Your task to perform on an android device: Add alienware area 51 to the cart on costco.com Image 0: 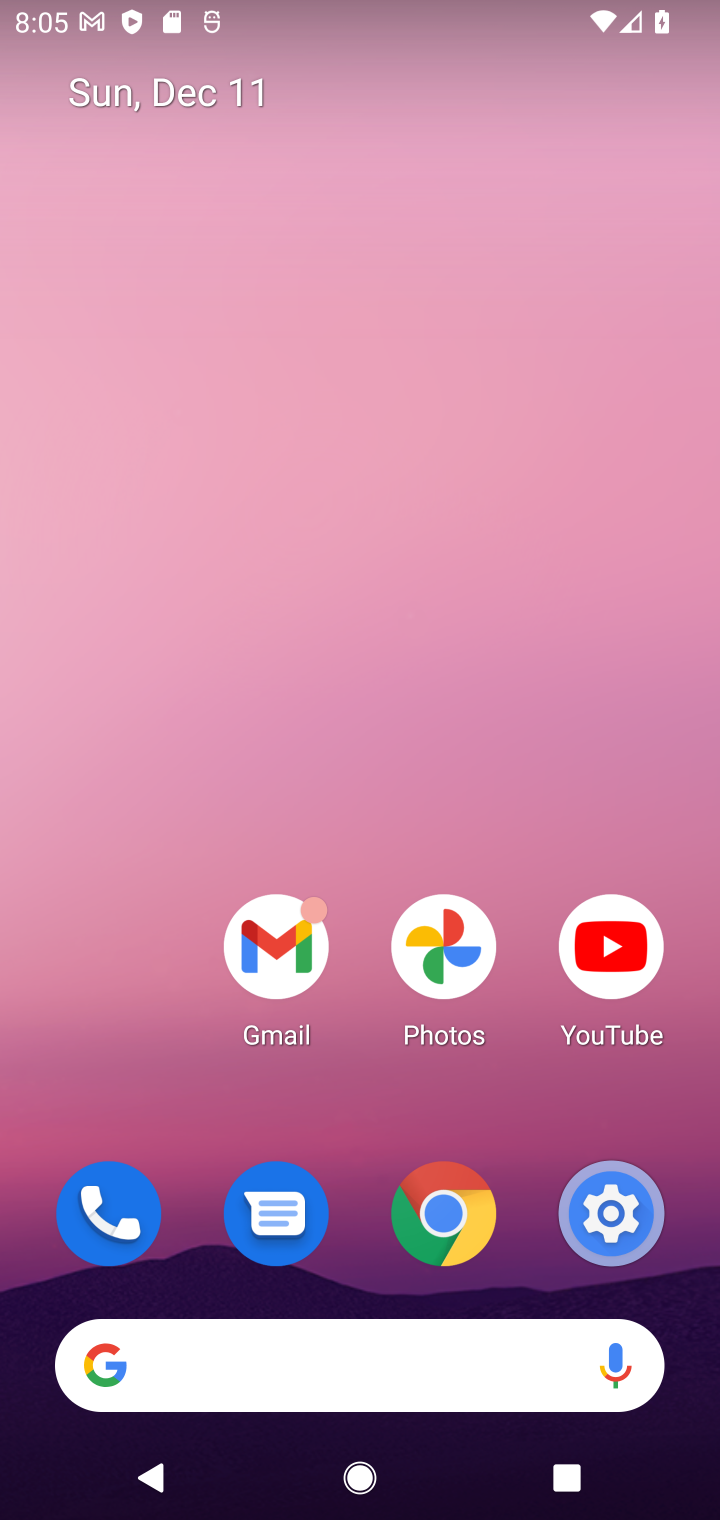
Step 0: click (432, 1362)
Your task to perform on an android device: Add alienware area 51 to the cart on costco.com Image 1: 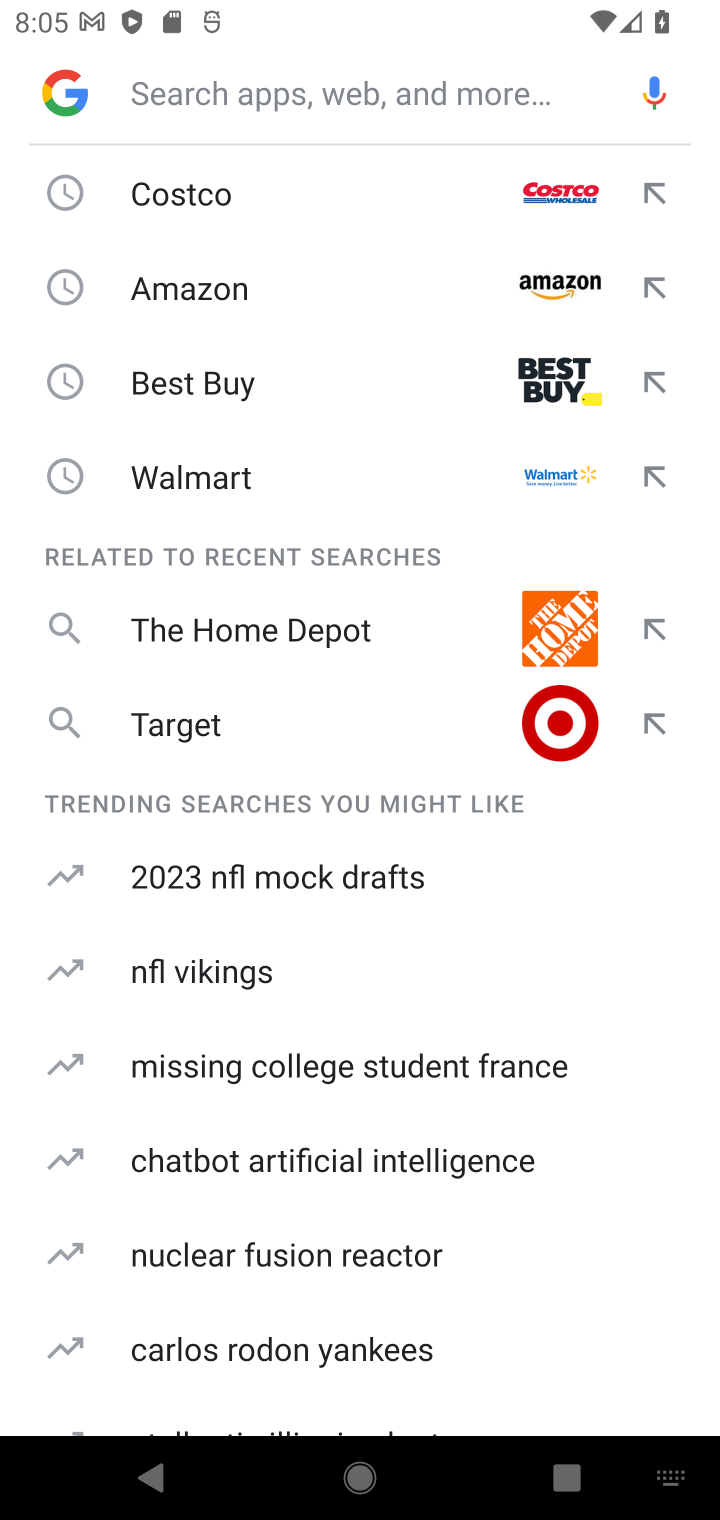
Step 1: click (296, 200)
Your task to perform on an android device: Add alienware area 51 to the cart on costco.com Image 2: 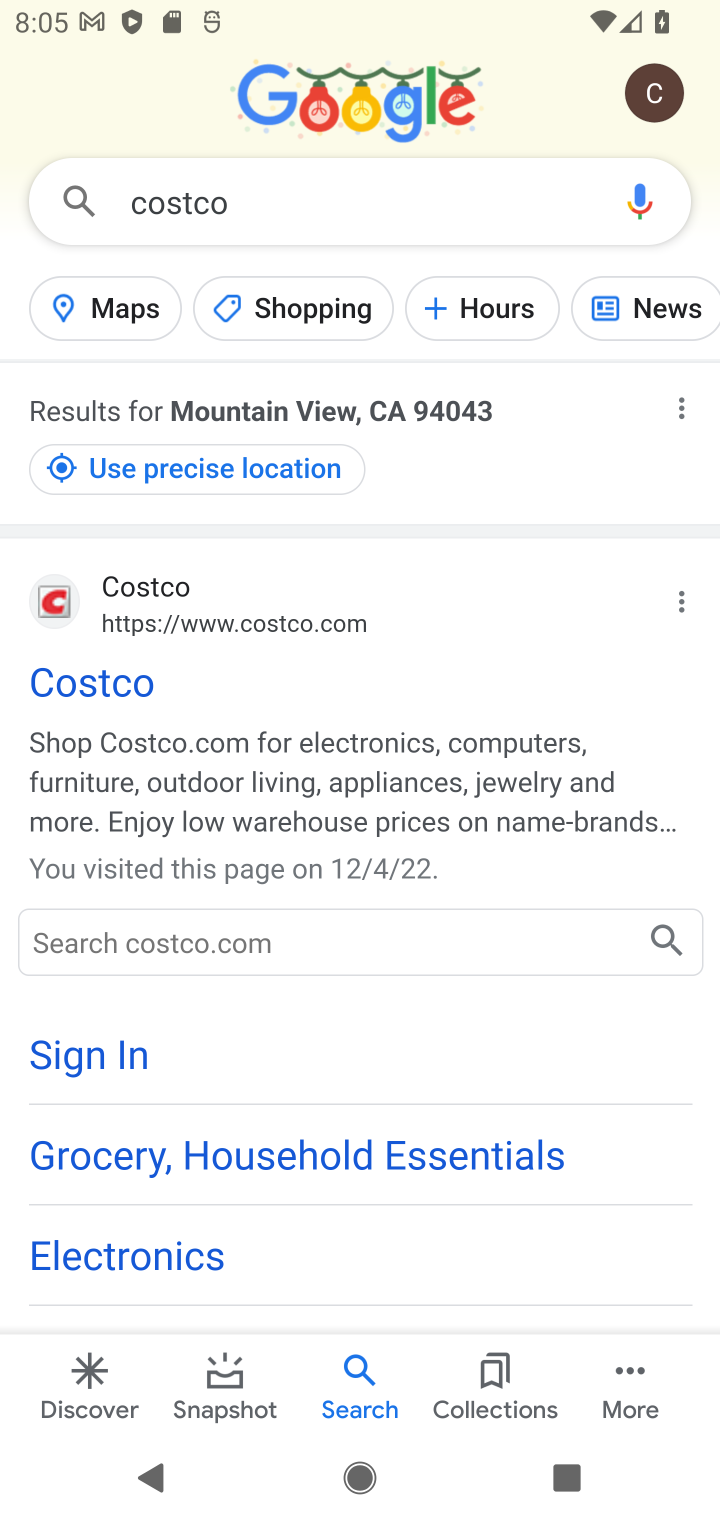
Step 2: click (108, 691)
Your task to perform on an android device: Add alienware area 51 to the cart on costco.com Image 3: 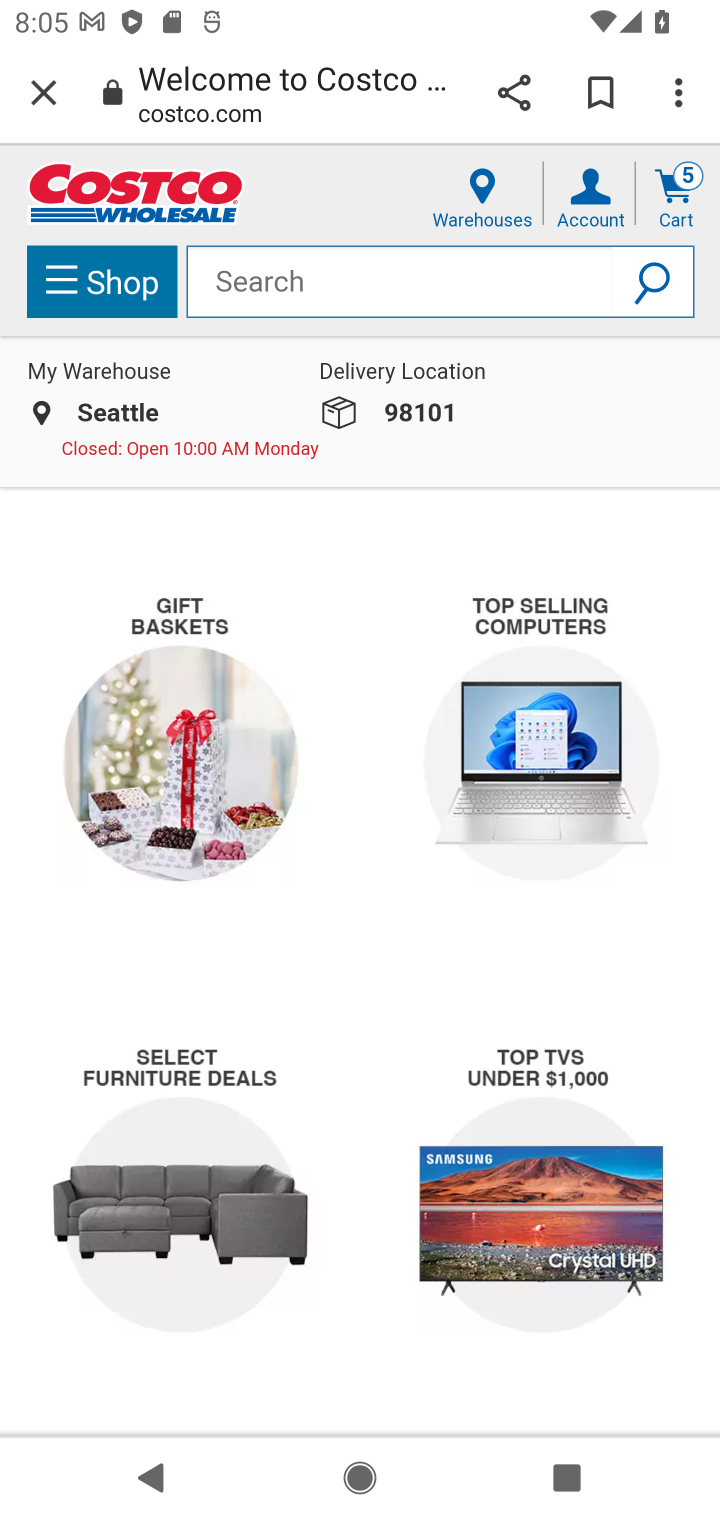
Step 3: click (301, 299)
Your task to perform on an android device: Add alienware area 51 to the cart on costco.com Image 4: 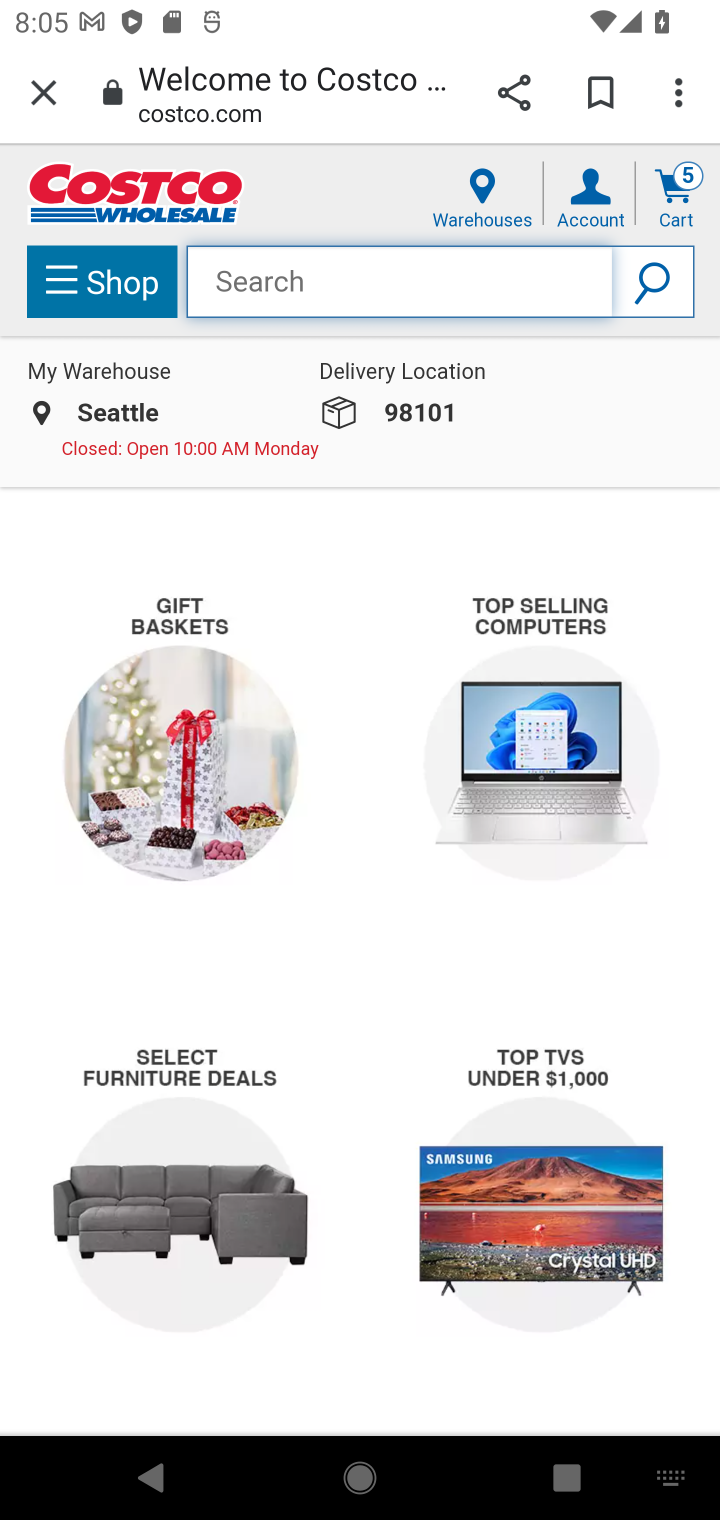
Step 4: type "alienware 51"
Your task to perform on an android device: Add alienware area 51 to the cart on costco.com Image 5: 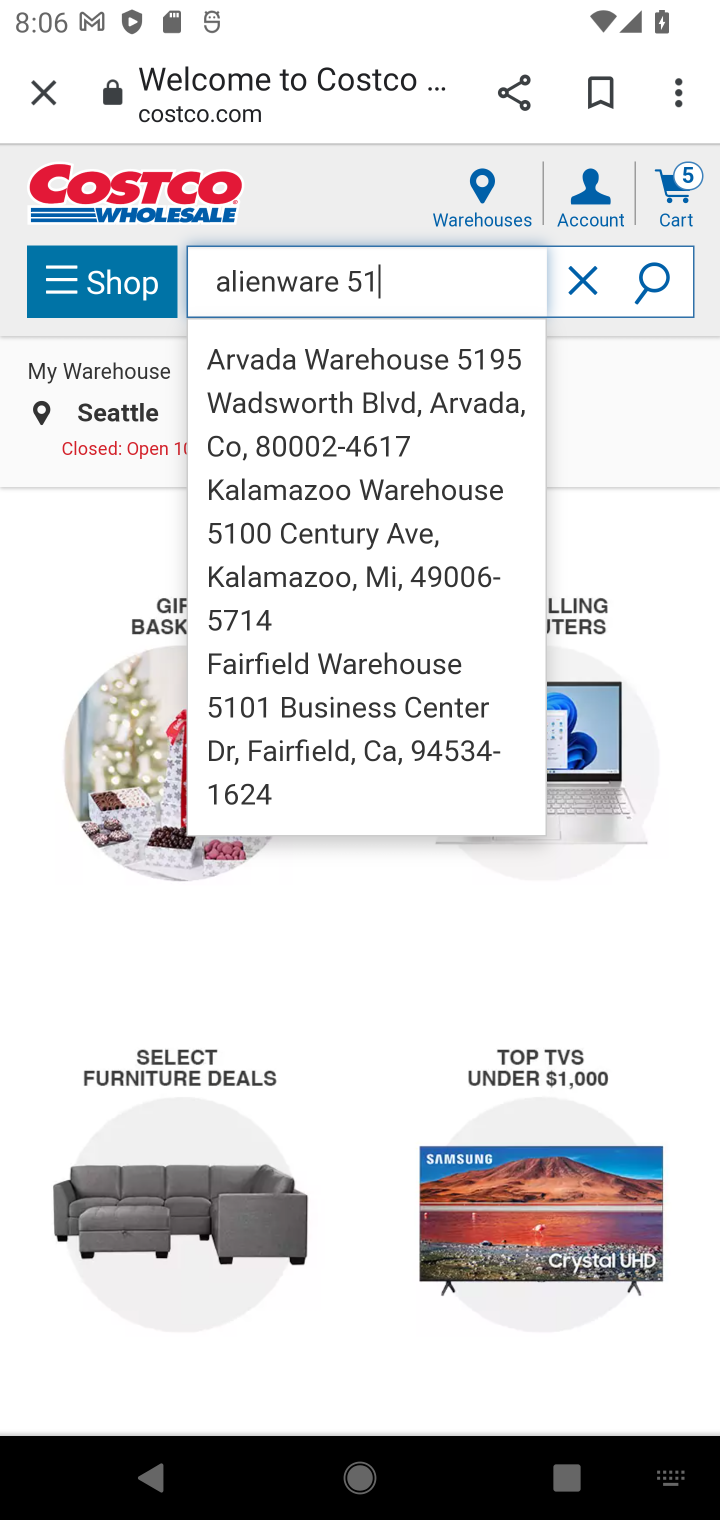
Step 5: click (666, 298)
Your task to perform on an android device: Add alienware area 51 to the cart on costco.com Image 6: 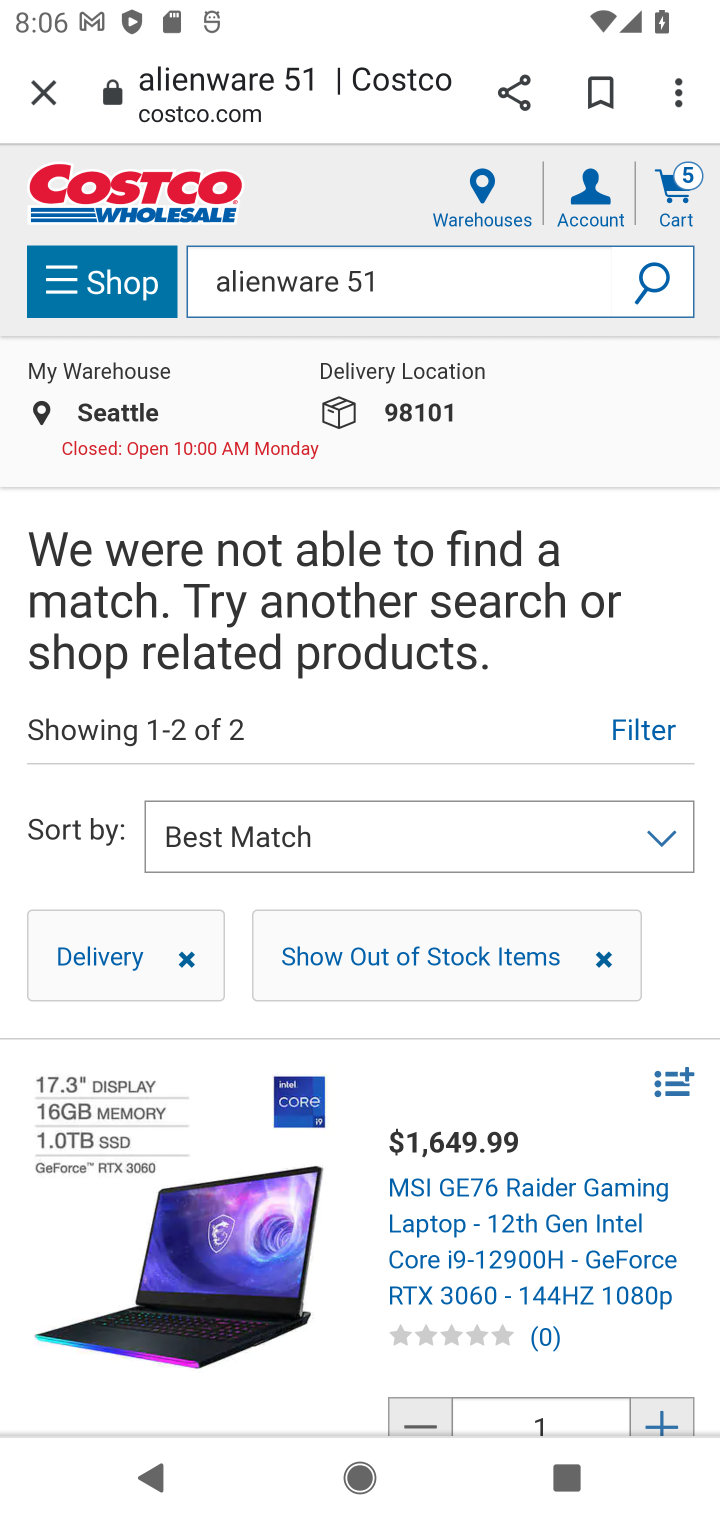
Step 6: click (529, 1215)
Your task to perform on an android device: Add alienware area 51 to the cart on costco.com Image 7: 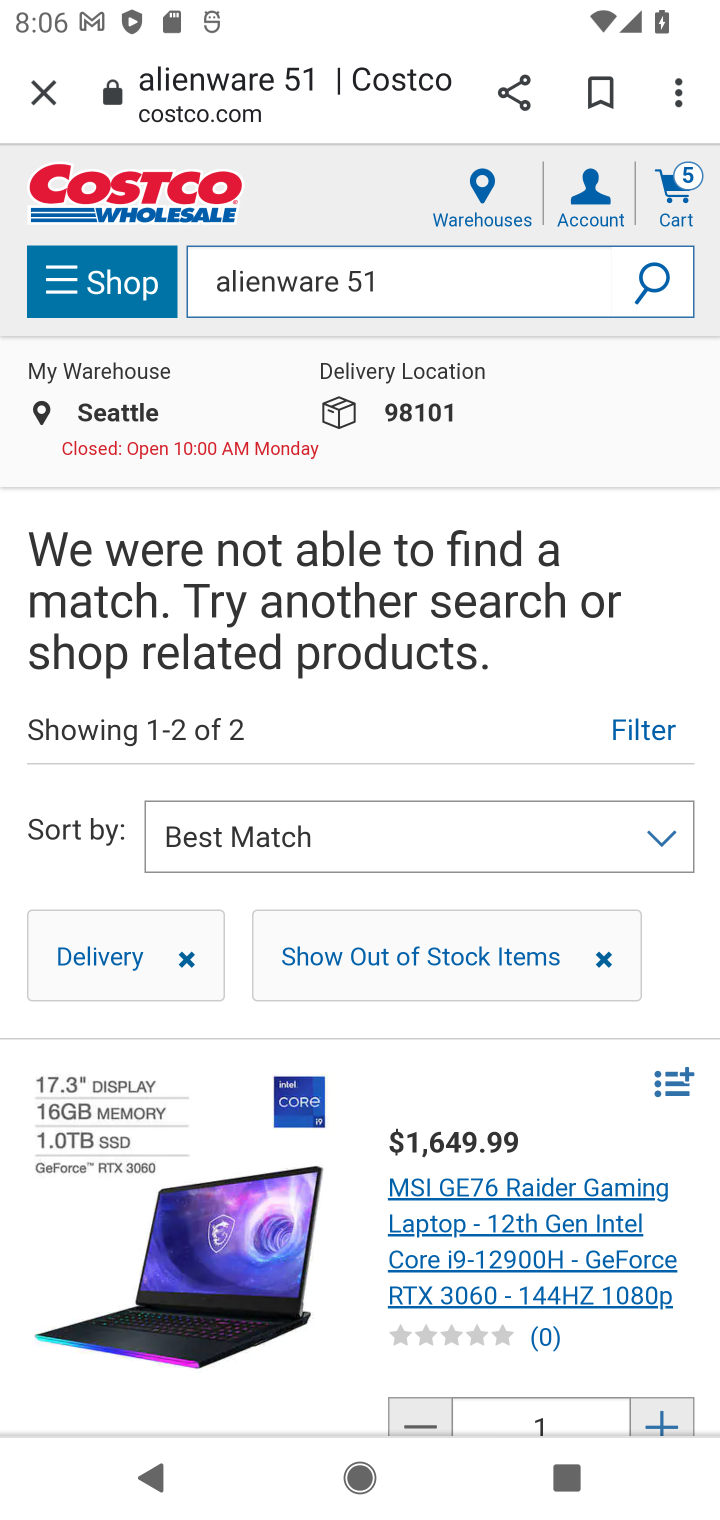
Step 7: task complete